Your task to perform on an android device: turn on data saver in the chrome app Image 0: 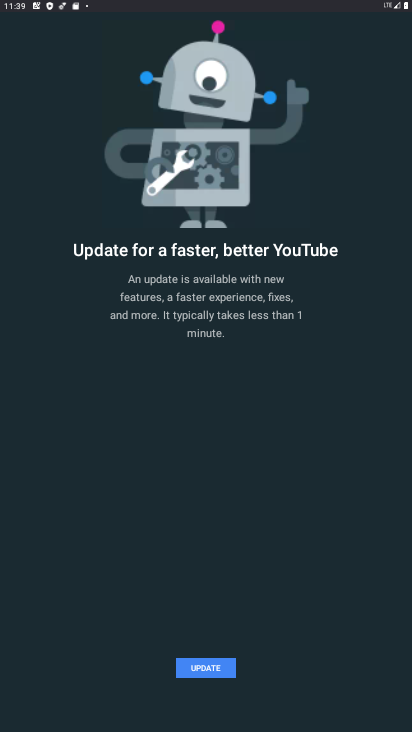
Step 0: press home button
Your task to perform on an android device: turn on data saver in the chrome app Image 1: 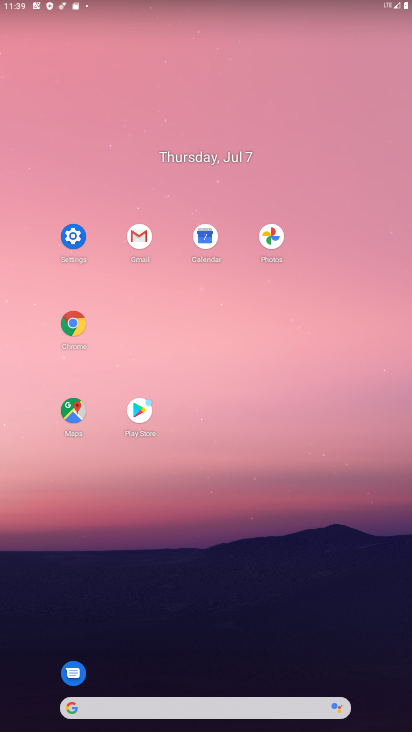
Step 1: click (74, 318)
Your task to perform on an android device: turn on data saver in the chrome app Image 2: 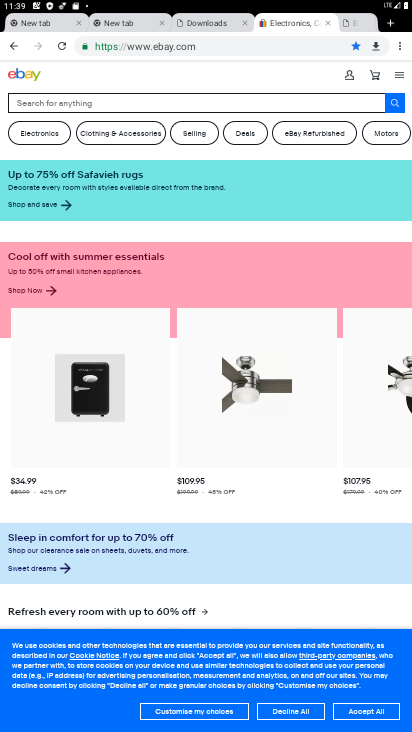
Step 2: click (401, 49)
Your task to perform on an android device: turn on data saver in the chrome app Image 3: 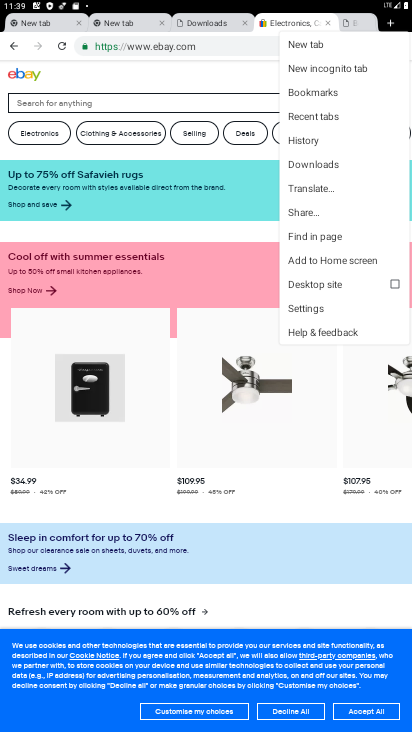
Step 3: click (311, 302)
Your task to perform on an android device: turn on data saver in the chrome app Image 4: 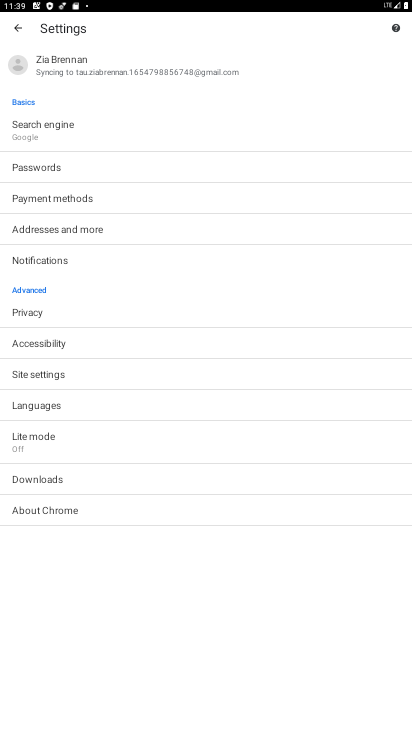
Step 4: click (66, 445)
Your task to perform on an android device: turn on data saver in the chrome app Image 5: 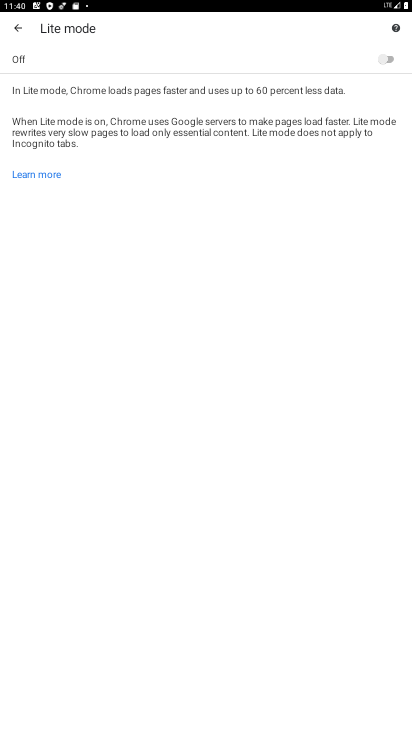
Step 5: click (390, 58)
Your task to perform on an android device: turn on data saver in the chrome app Image 6: 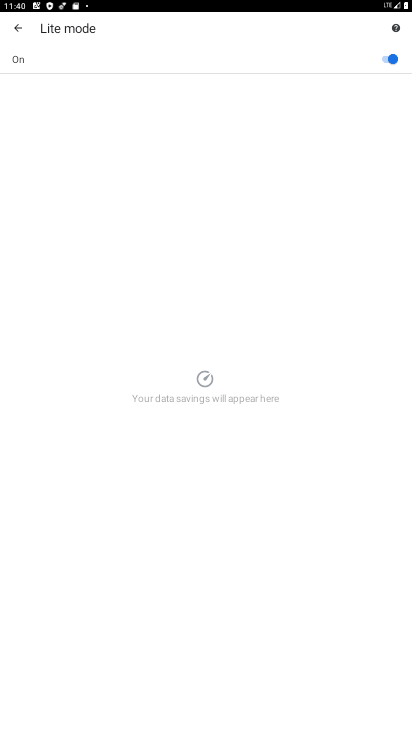
Step 6: task complete